Your task to perform on an android device: Go to wifi settings Image 0: 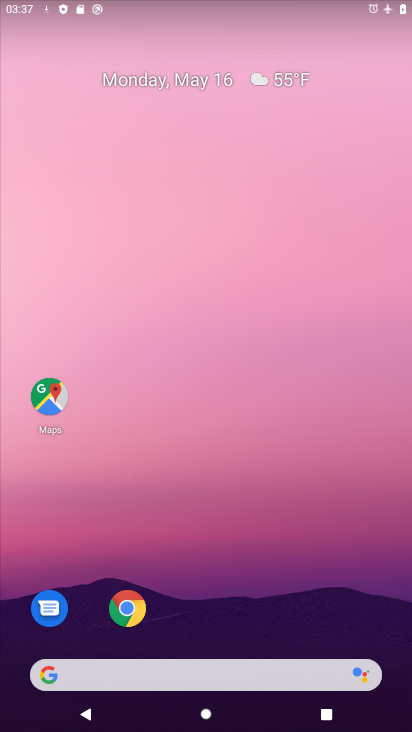
Step 0: drag from (215, 634) to (214, 245)
Your task to perform on an android device: Go to wifi settings Image 1: 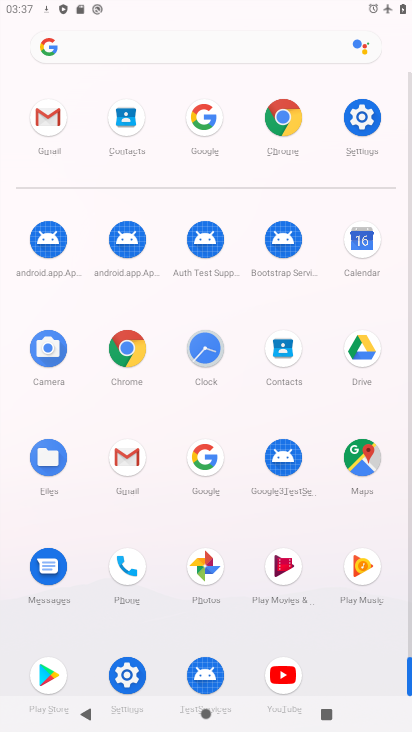
Step 1: click (353, 121)
Your task to perform on an android device: Go to wifi settings Image 2: 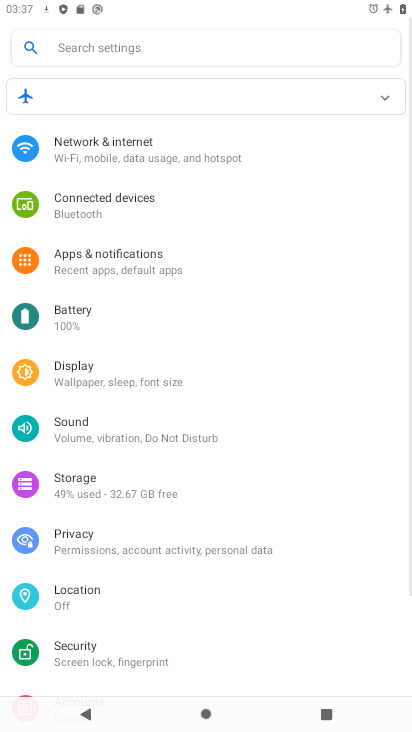
Step 2: click (111, 154)
Your task to perform on an android device: Go to wifi settings Image 3: 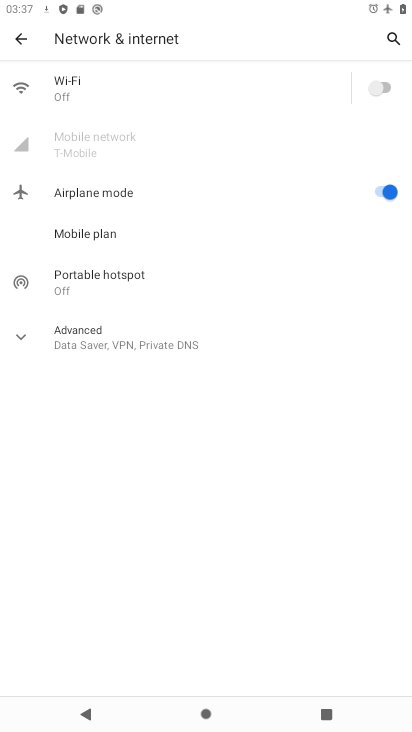
Step 3: click (132, 96)
Your task to perform on an android device: Go to wifi settings Image 4: 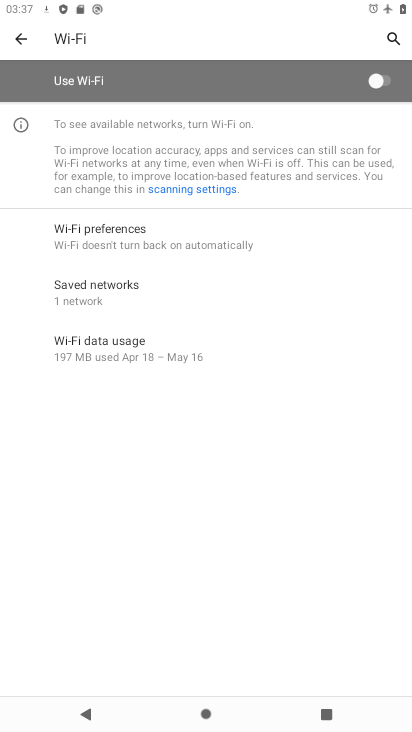
Step 4: task complete